Your task to perform on an android device: find photos in the google photos app Image 0: 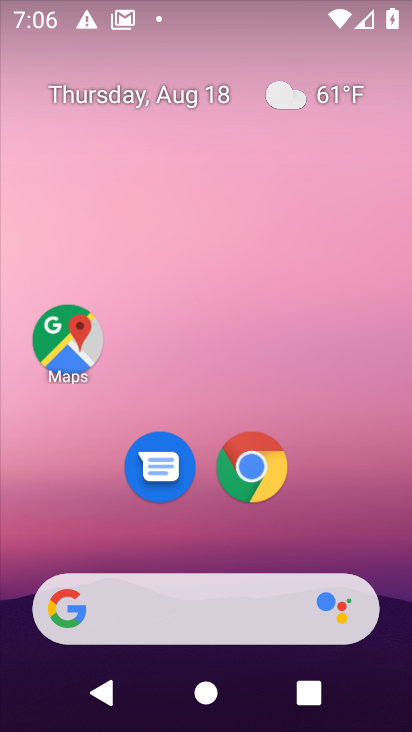
Step 0: drag from (297, 382) to (321, 183)
Your task to perform on an android device: find photos in the google photos app Image 1: 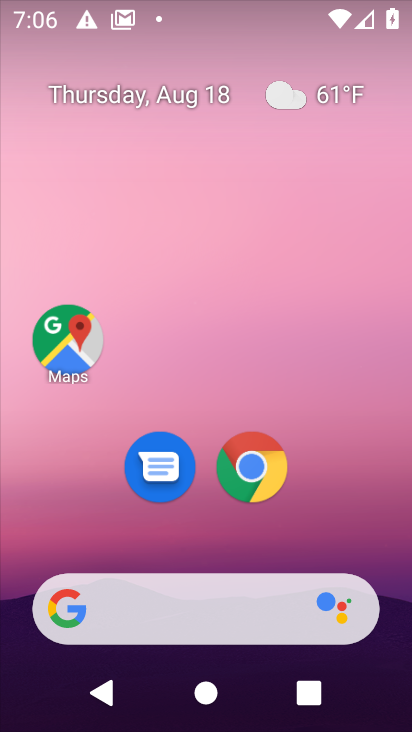
Step 1: task complete